Your task to perform on an android device: toggle wifi Image 0: 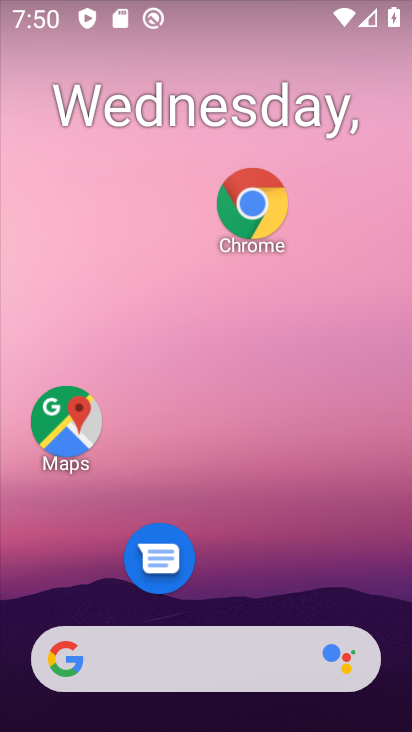
Step 0: press home button
Your task to perform on an android device: toggle wifi Image 1: 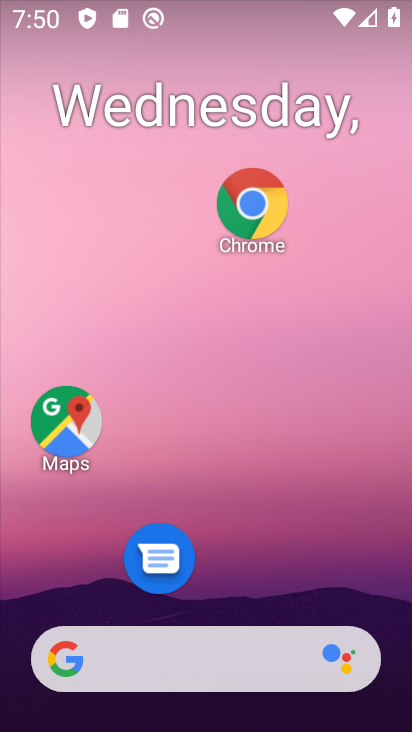
Step 1: drag from (214, 593) to (196, 161)
Your task to perform on an android device: toggle wifi Image 2: 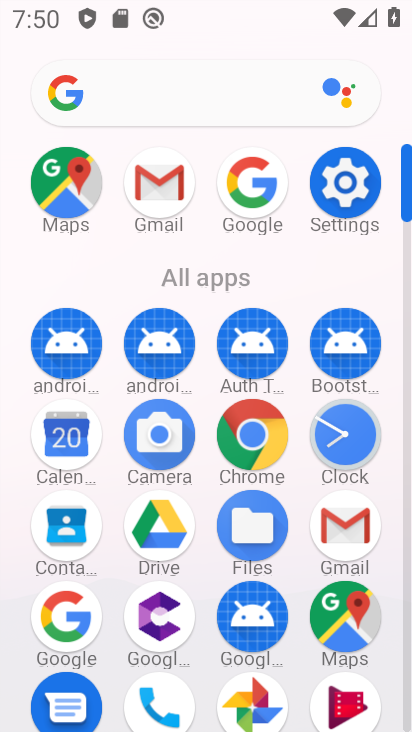
Step 2: click (344, 177)
Your task to perform on an android device: toggle wifi Image 3: 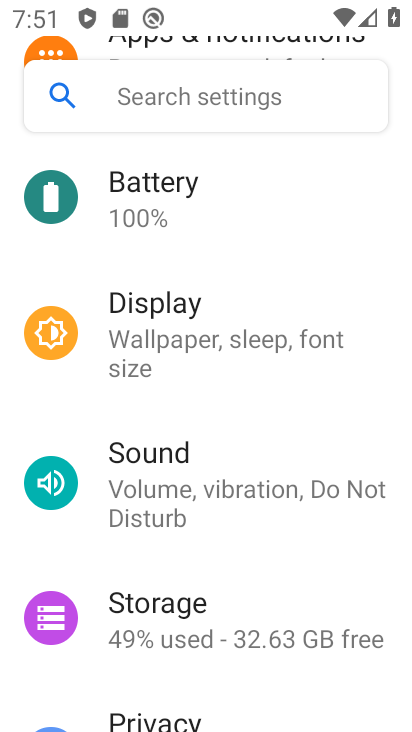
Step 3: drag from (217, 184) to (254, 703)
Your task to perform on an android device: toggle wifi Image 4: 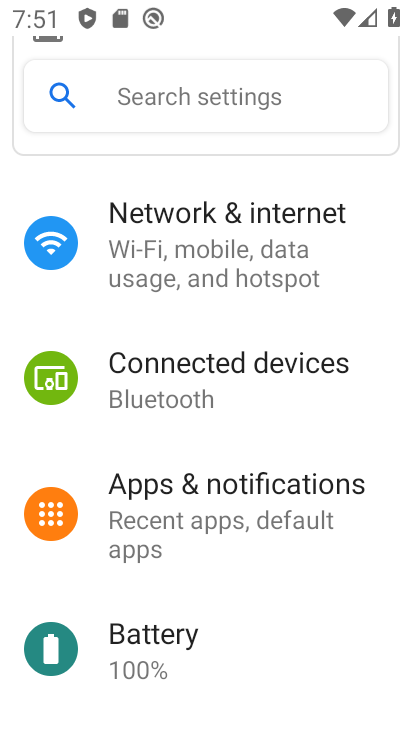
Step 4: click (194, 264)
Your task to perform on an android device: toggle wifi Image 5: 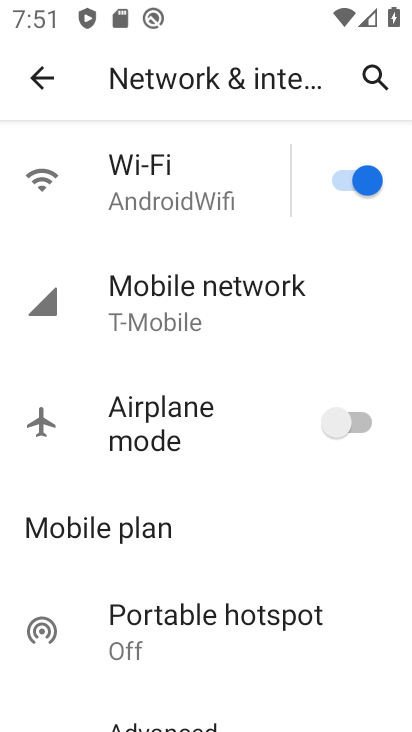
Step 5: click (211, 165)
Your task to perform on an android device: toggle wifi Image 6: 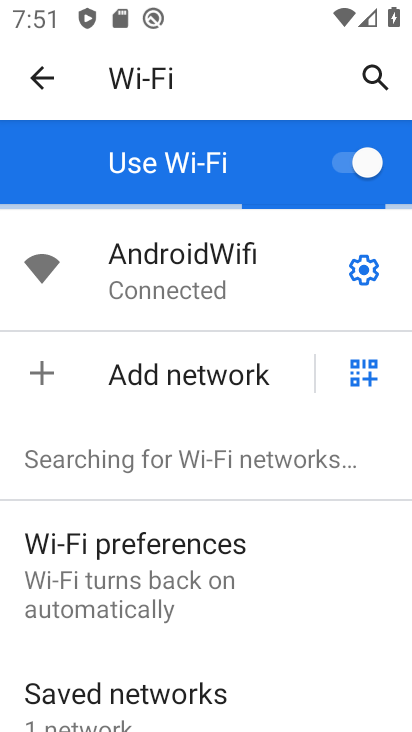
Step 6: click (348, 157)
Your task to perform on an android device: toggle wifi Image 7: 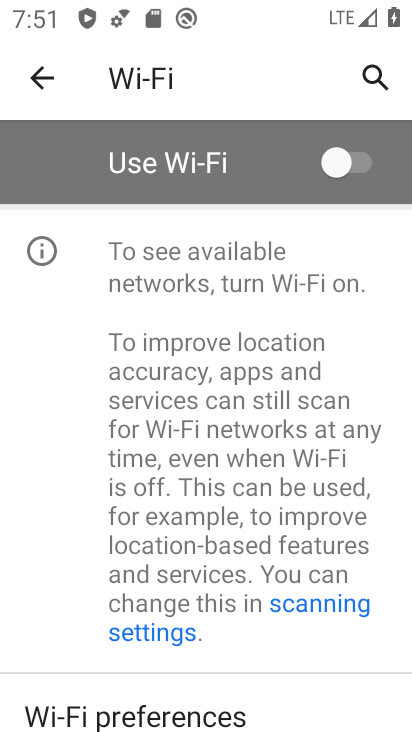
Step 7: task complete